Your task to perform on an android device: turn on showing notifications on the lock screen Image 0: 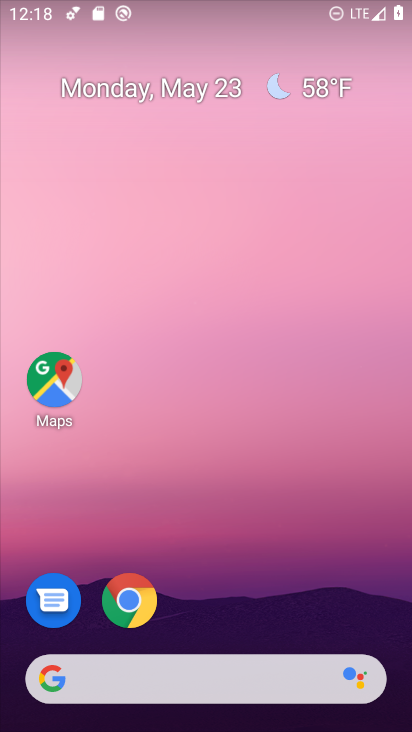
Step 0: drag from (272, 610) to (296, 113)
Your task to perform on an android device: turn on showing notifications on the lock screen Image 1: 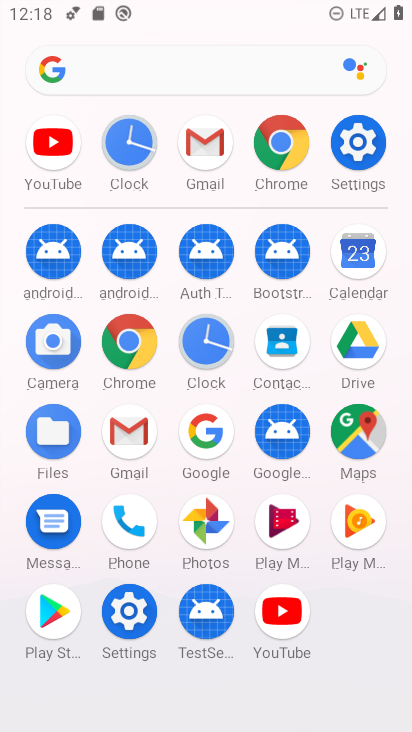
Step 1: click (350, 153)
Your task to perform on an android device: turn on showing notifications on the lock screen Image 2: 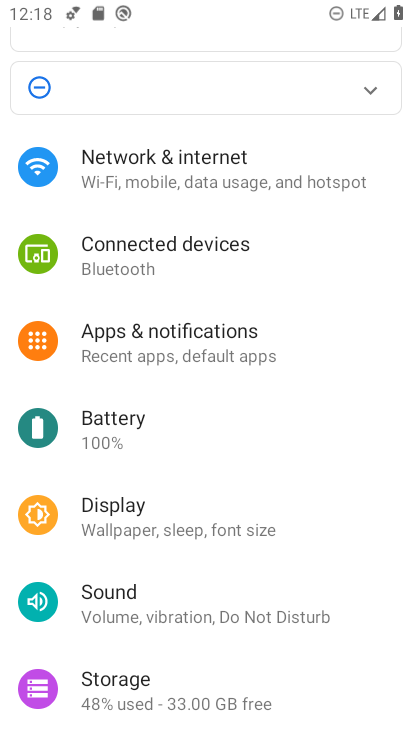
Step 2: click (165, 352)
Your task to perform on an android device: turn on showing notifications on the lock screen Image 3: 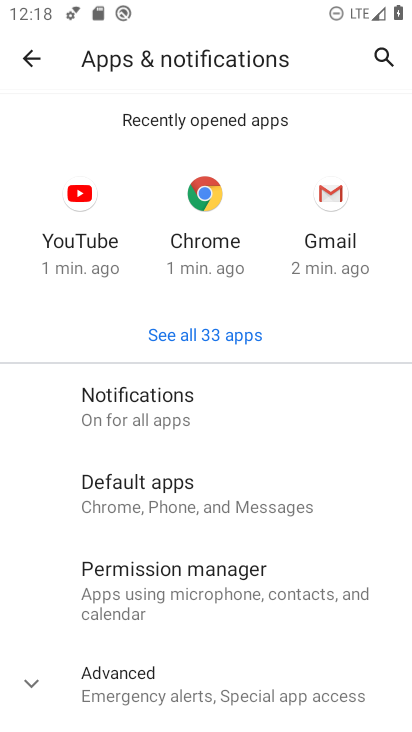
Step 3: click (115, 414)
Your task to perform on an android device: turn on showing notifications on the lock screen Image 4: 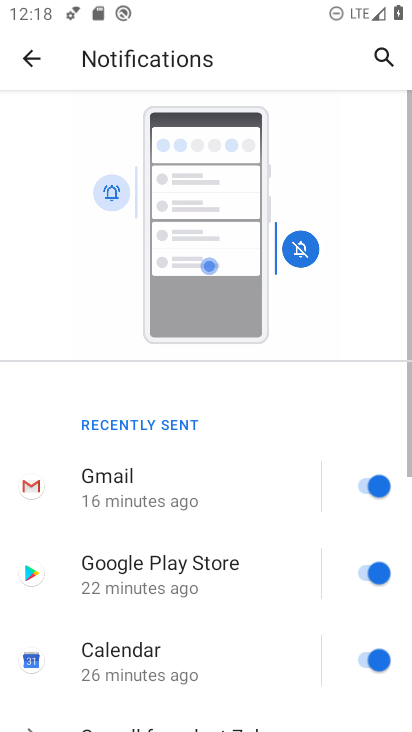
Step 4: drag from (182, 614) to (165, 169)
Your task to perform on an android device: turn on showing notifications on the lock screen Image 5: 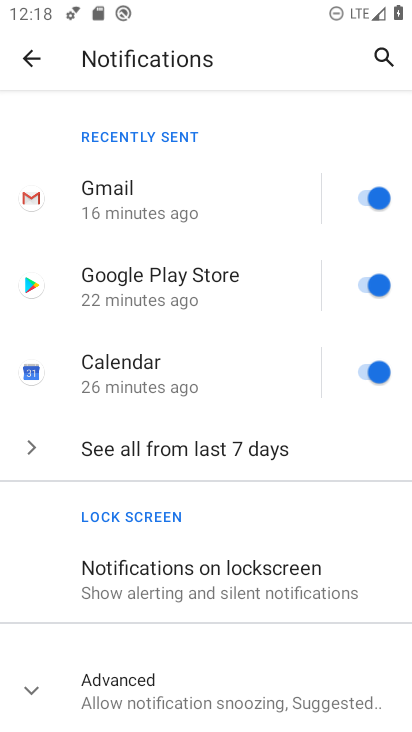
Step 5: click (192, 578)
Your task to perform on an android device: turn on showing notifications on the lock screen Image 6: 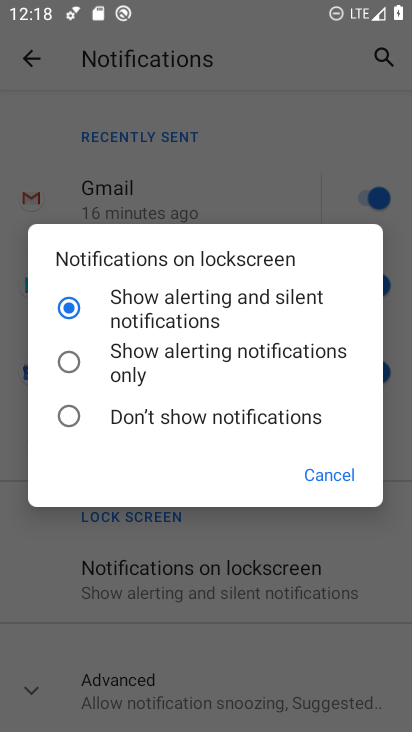
Step 6: click (80, 364)
Your task to perform on an android device: turn on showing notifications on the lock screen Image 7: 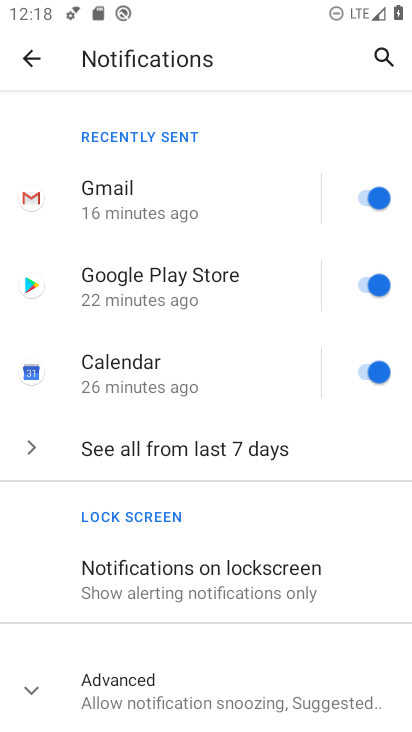
Step 7: task complete